Your task to perform on an android device: check data usage Image 0: 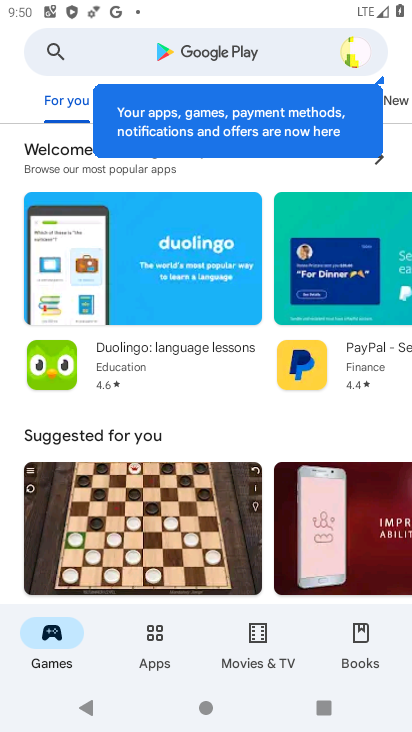
Step 0: press home button
Your task to perform on an android device: check data usage Image 1: 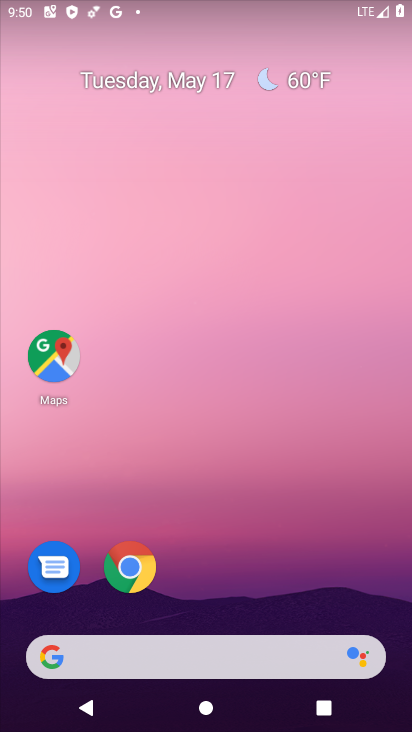
Step 1: drag from (373, 609) to (268, 87)
Your task to perform on an android device: check data usage Image 2: 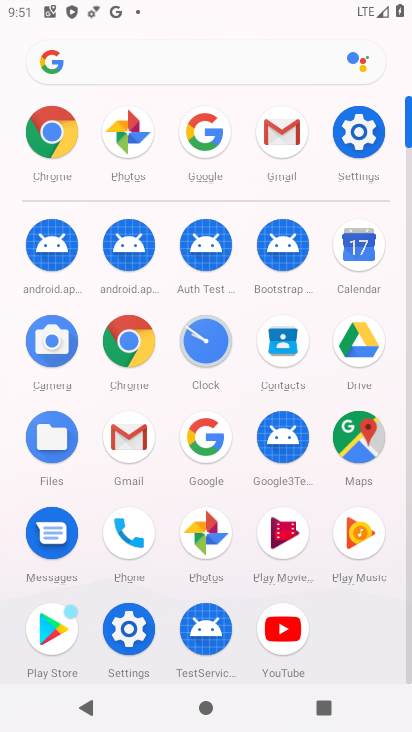
Step 2: click (129, 629)
Your task to perform on an android device: check data usage Image 3: 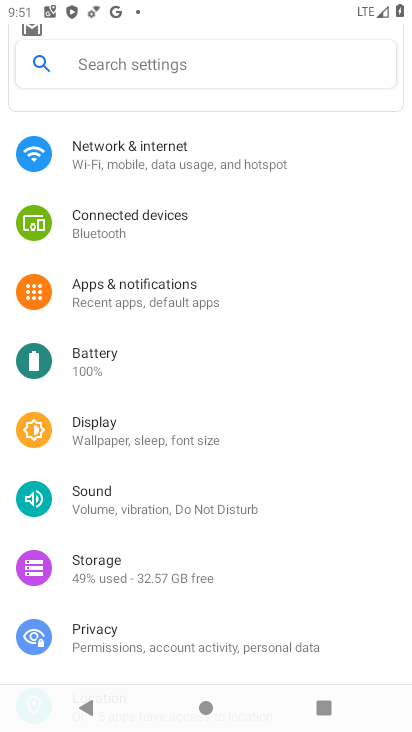
Step 3: click (137, 189)
Your task to perform on an android device: check data usage Image 4: 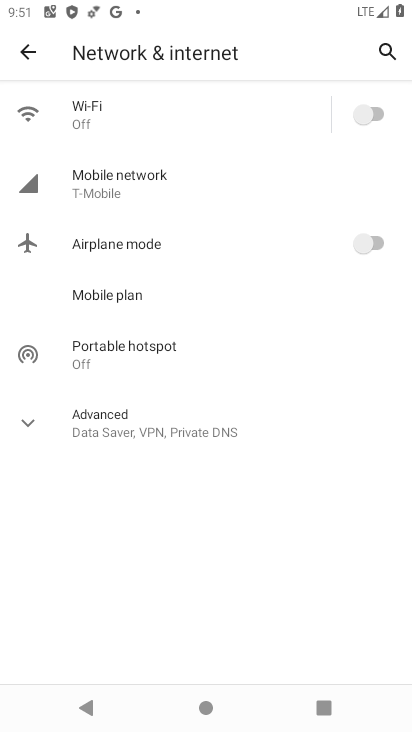
Step 4: click (137, 189)
Your task to perform on an android device: check data usage Image 5: 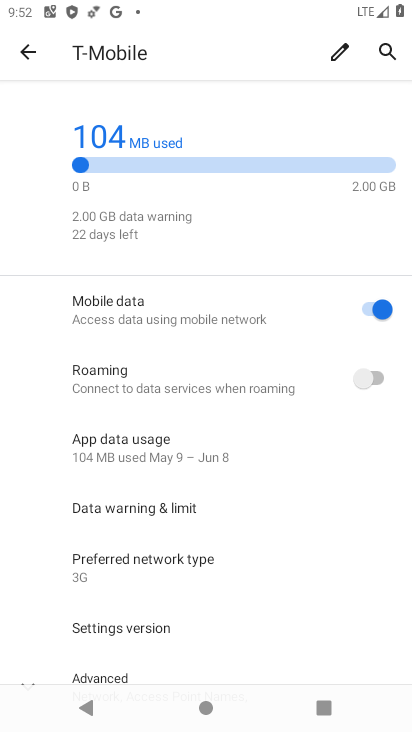
Step 5: click (193, 441)
Your task to perform on an android device: check data usage Image 6: 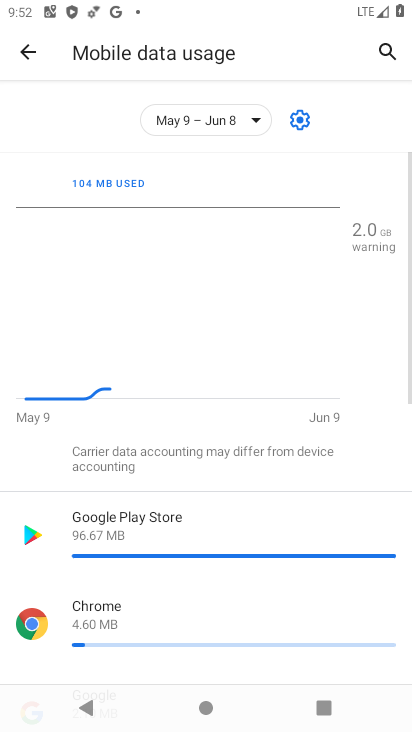
Step 6: task complete